Your task to perform on an android device: Open Chrome and go to settings Image 0: 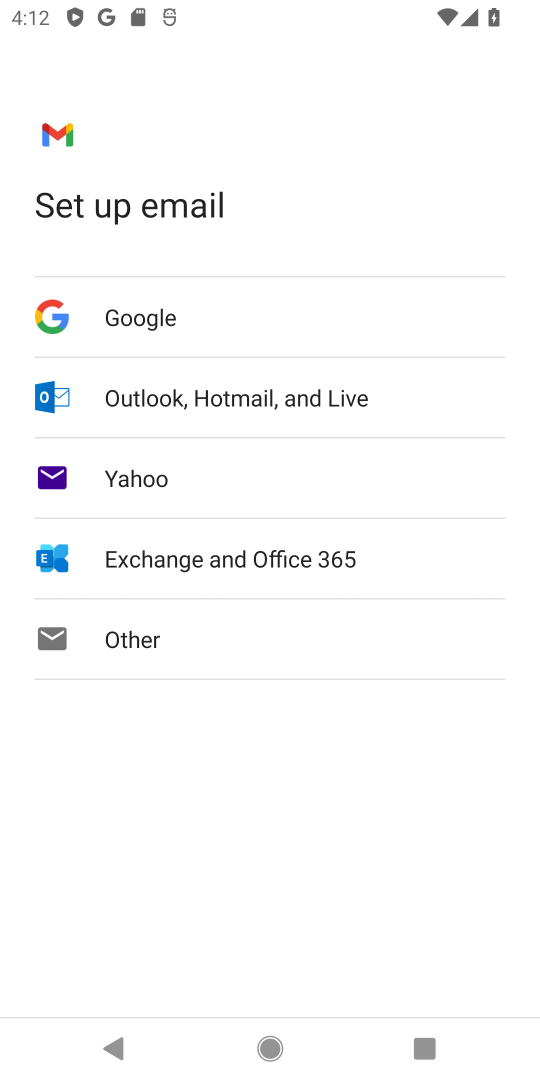
Step 0: press home button
Your task to perform on an android device: Open Chrome and go to settings Image 1: 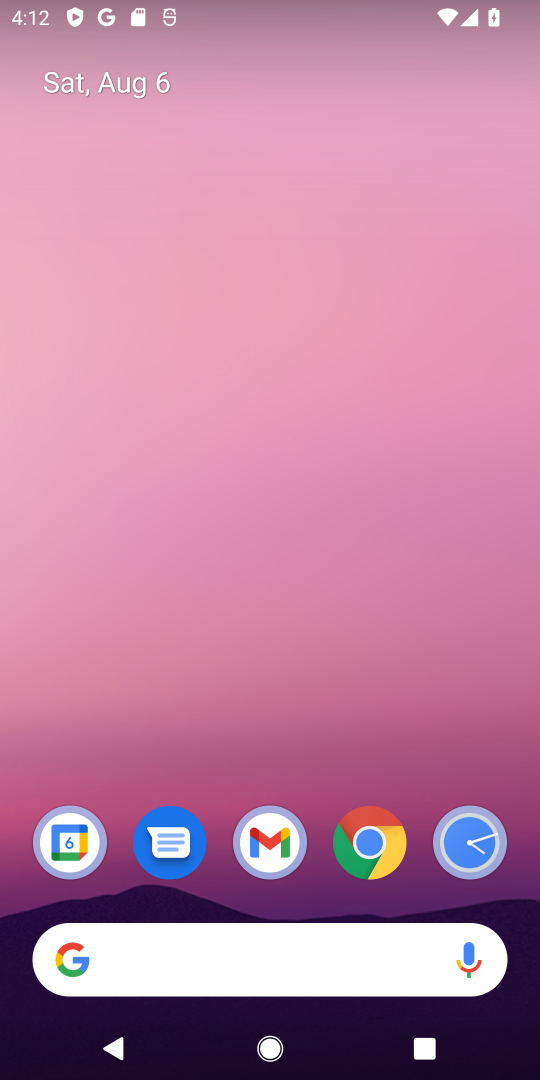
Step 1: click (368, 844)
Your task to perform on an android device: Open Chrome and go to settings Image 2: 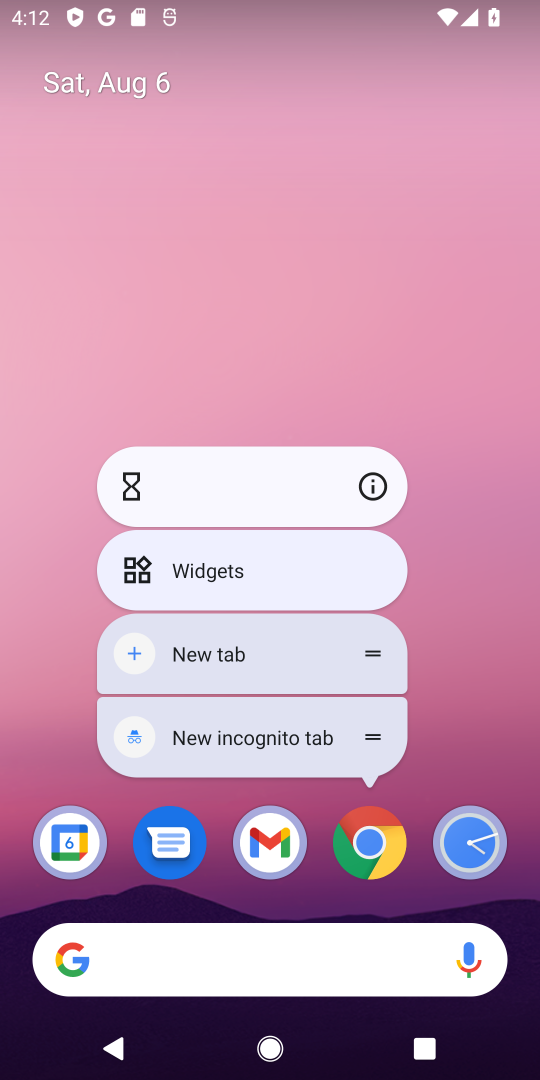
Step 2: click (368, 844)
Your task to perform on an android device: Open Chrome and go to settings Image 3: 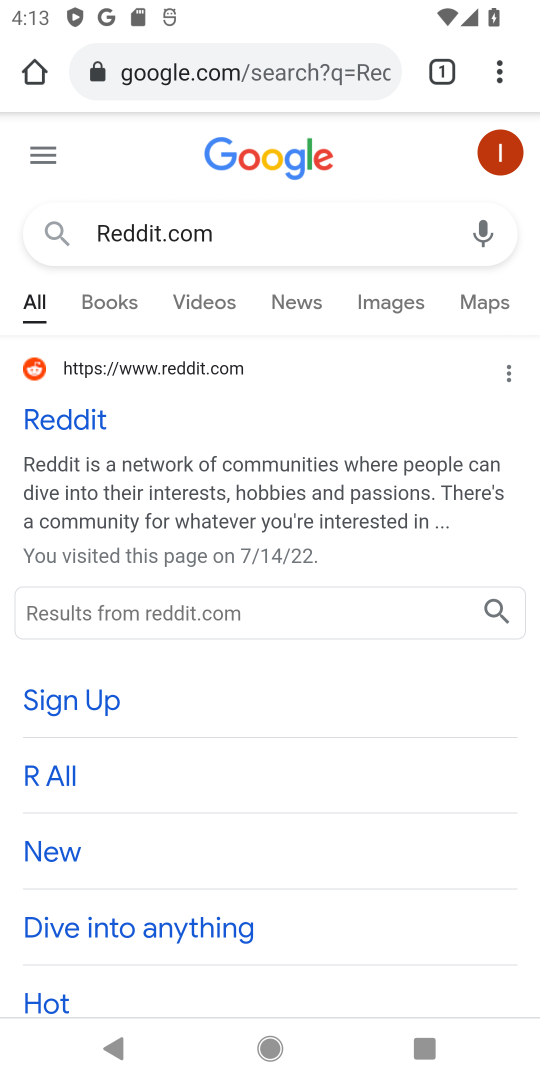
Step 3: click (497, 64)
Your task to perform on an android device: Open Chrome and go to settings Image 4: 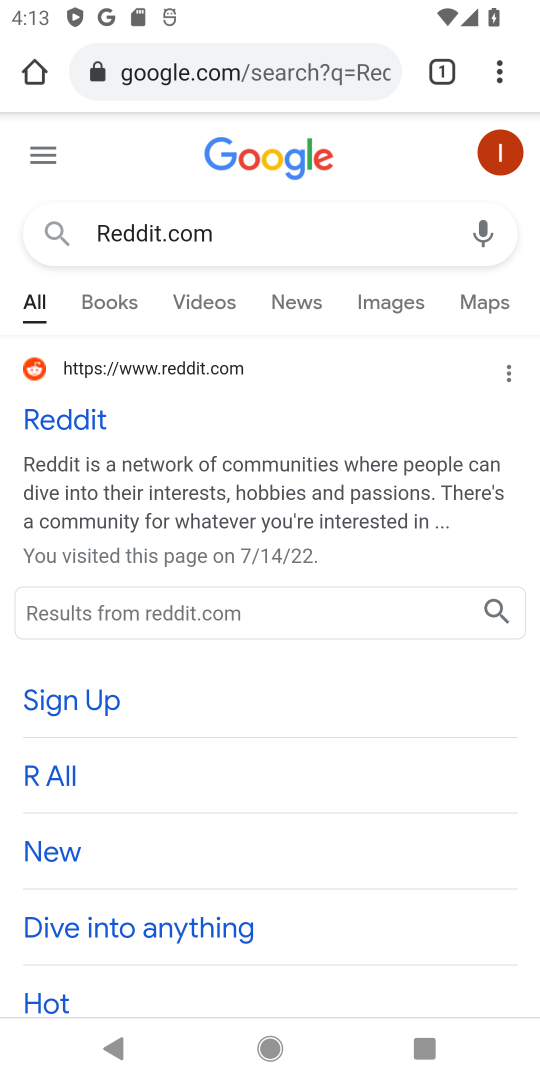
Step 4: click (501, 62)
Your task to perform on an android device: Open Chrome and go to settings Image 5: 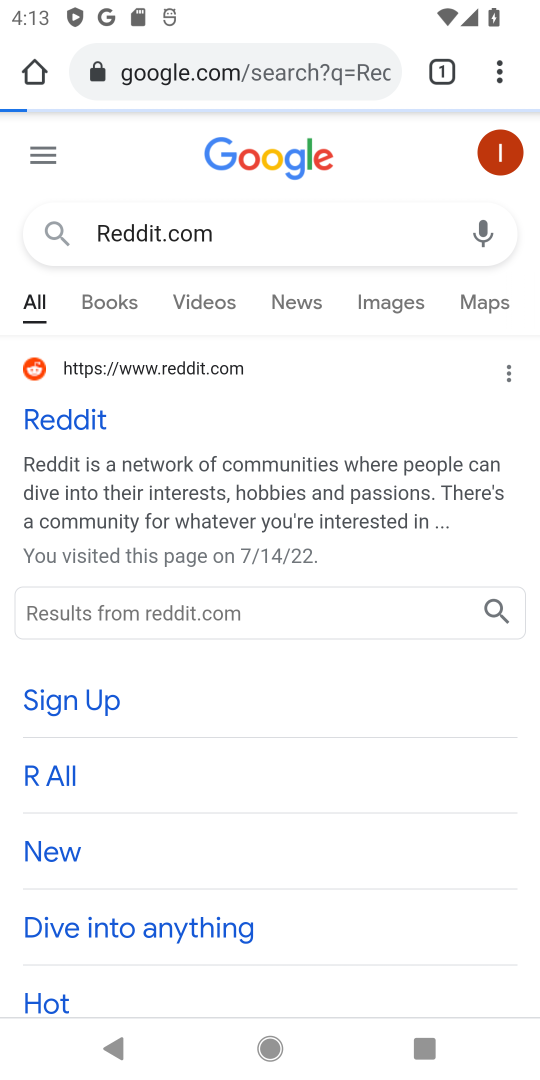
Step 5: click (501, 62)
Your task to perform on an android device: Open Chrome and go to settings Image 6: 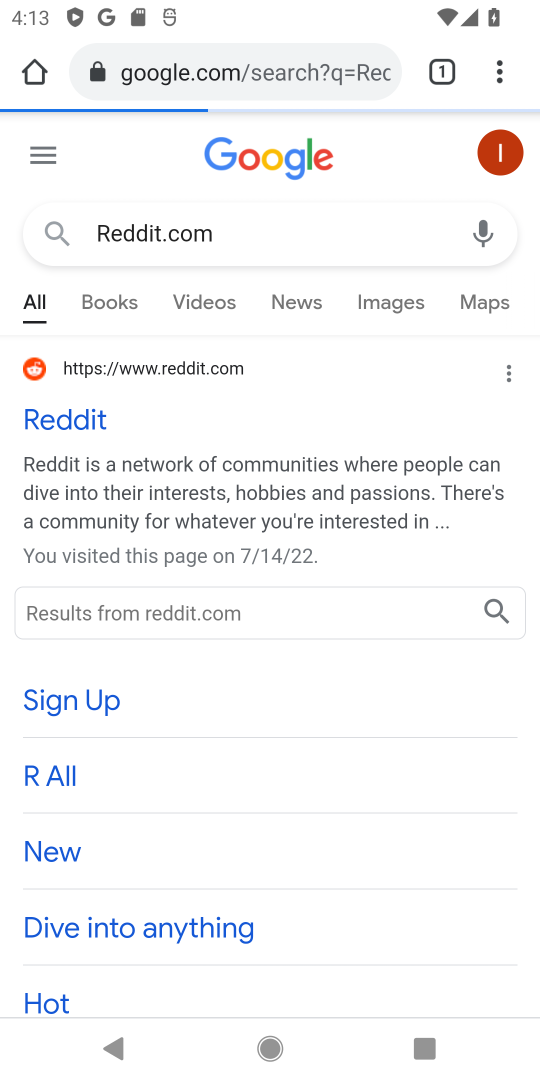
Step 6: click (501, 75)
Your task to perform on an android device: Open Chrome and go to settings Image 7: 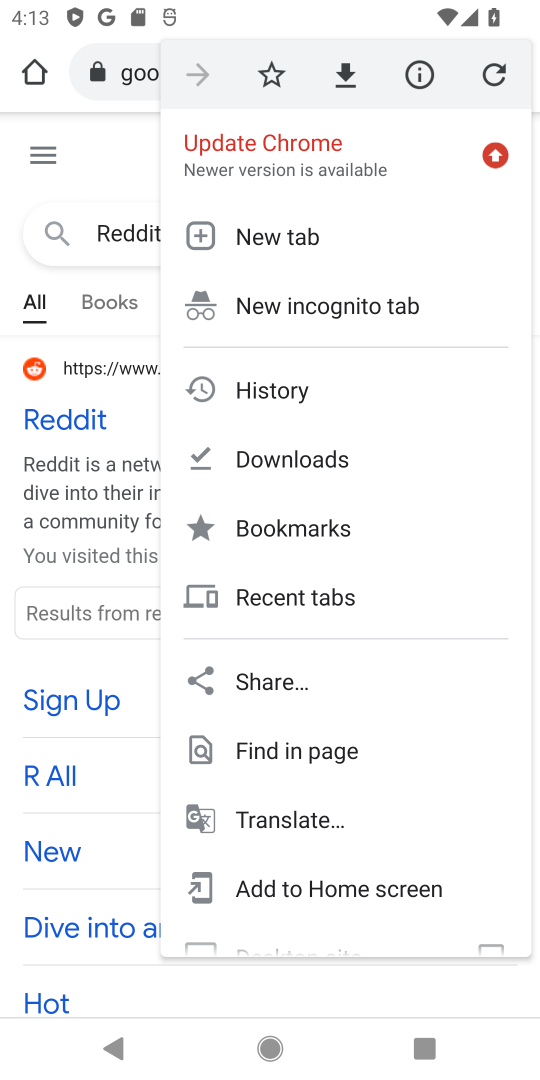
Step 7: drag from (463, 876) to (425, 432)
Your task to perform on an android device: Open Chrome and go to settings Image 8: 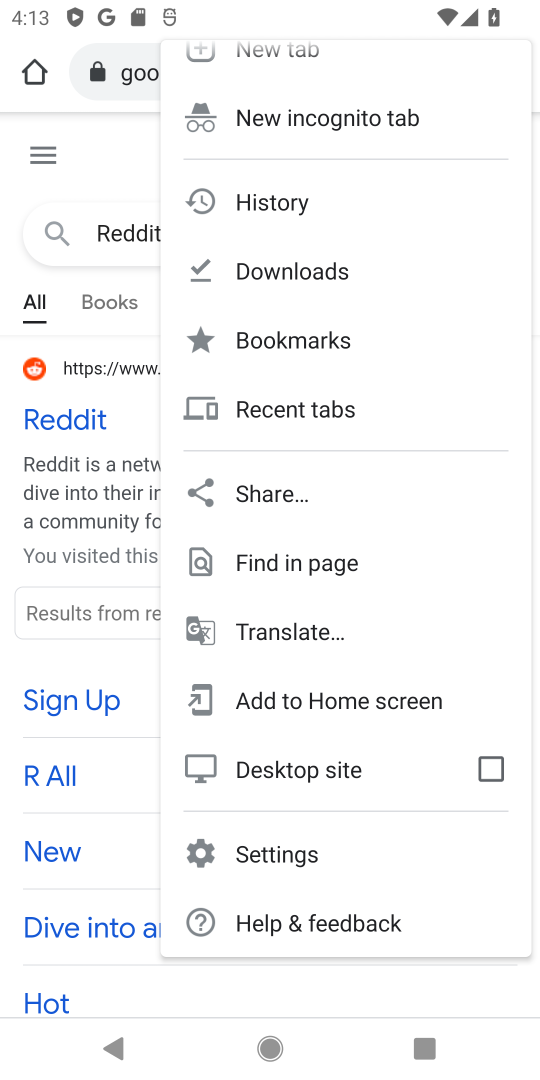
Step 8: click (268, 841)
Your task to perform on an android device: Open Chrome and go to settings Image 9: 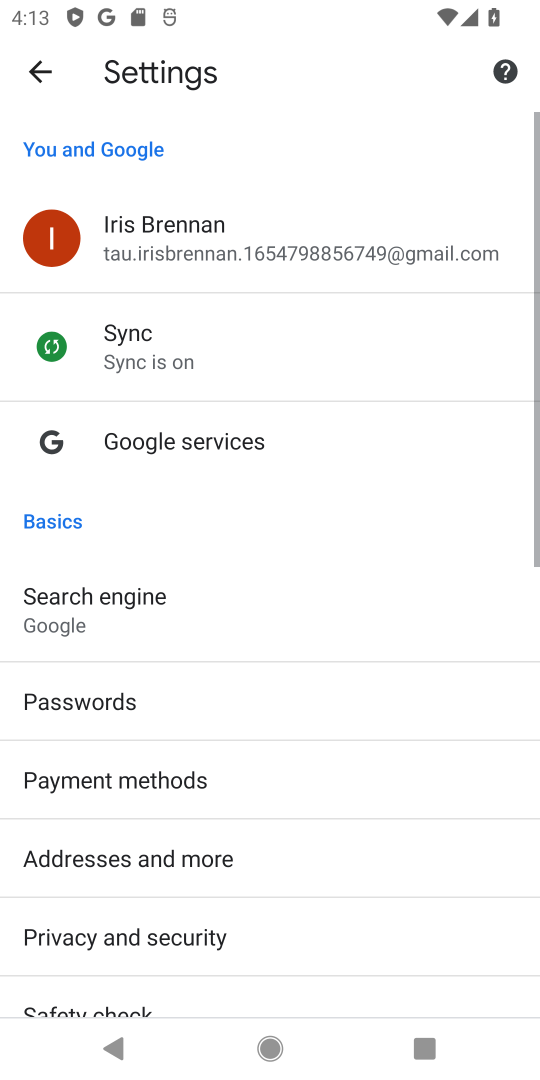
Step 9: task complete